Your task to perform on an android device: Open battery settings Image 0: 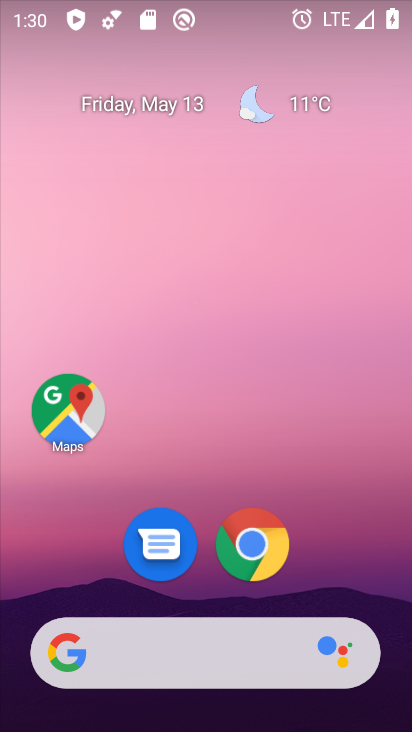
Step 0: drag from (224, 365) to (284, 135)
Your task to perform on an android device: Open battery settings Image 1: 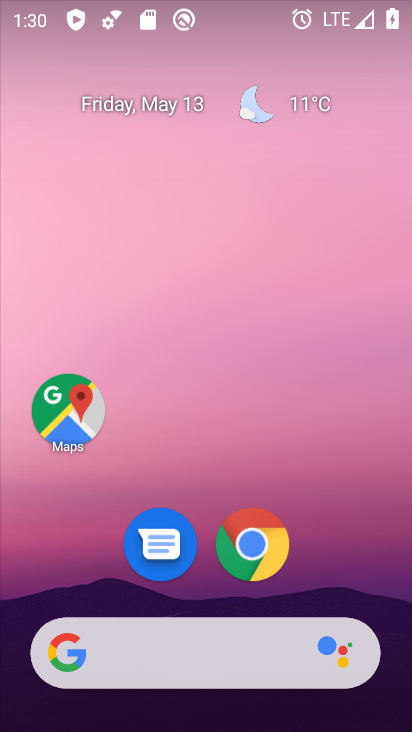
Step 1: drag from (204, 590) to (212, 162)
Your task to perform on an android device: Open battery settings Image 2: 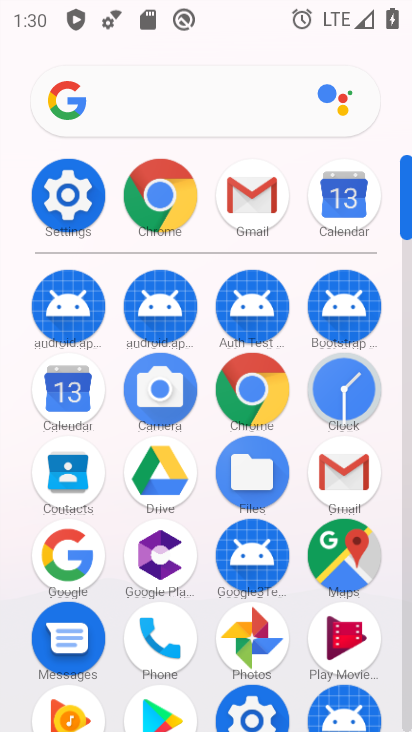
Step 2: click (72, 196)
Your task to perform on an android device: Open battery settings Image 3: 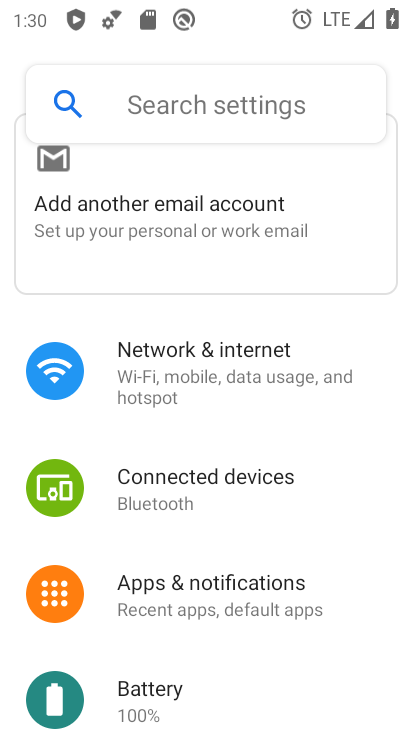
Step 3: click (172, 699)
Your task to perform on an android device: Open battery settings Image 4: 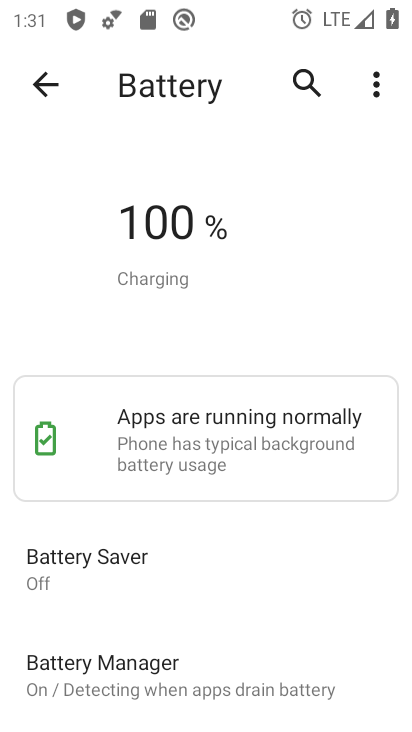
Step 4: task complete